Your task to perform on an android device: empty trash in the gmail app Image 0: 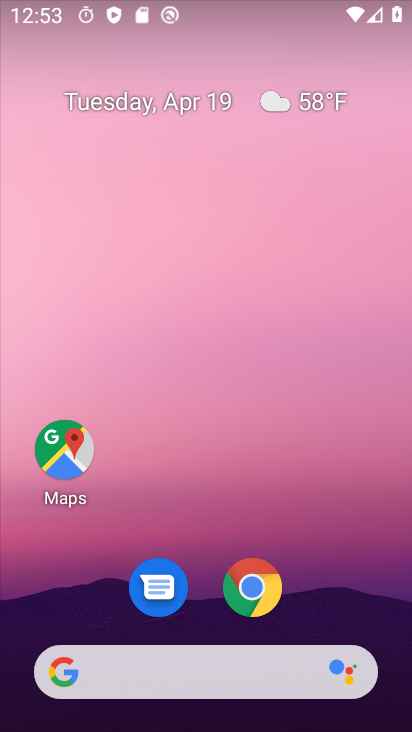
Step 0: drag from (376, 497) to (365, 114)
Your task to perform on an android device: empty trash in the gmail app Image 1: 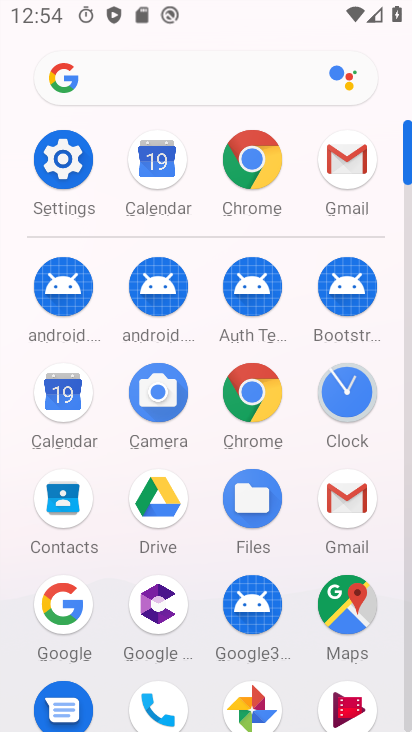
Step 1: click (338, 184)
Your task to perform on an android device: empty trash in the gmail app Image 2: 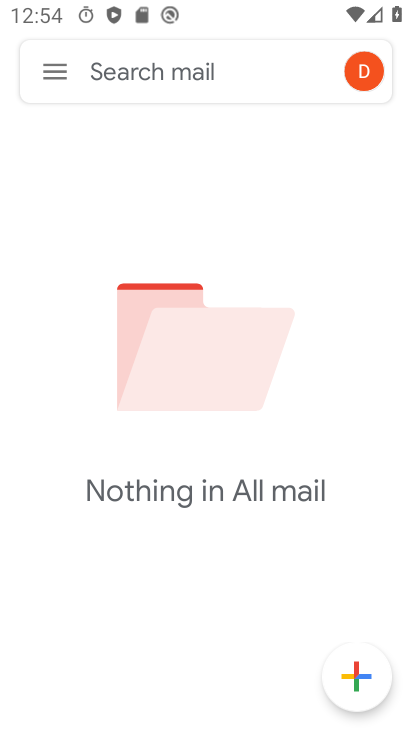
Step 2: click (53, 71)
Your task to perform on an android device: empty trash in the gmail app Image 3: 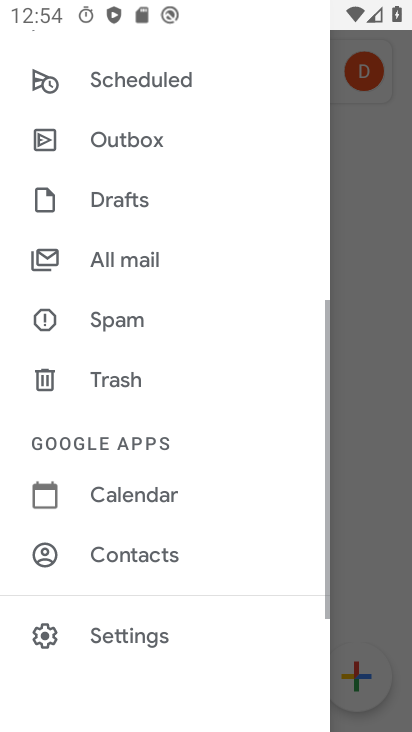
Step 3: click (125, 375)
Your task to perform on an android device: empty trash in the gmail app Image 4: 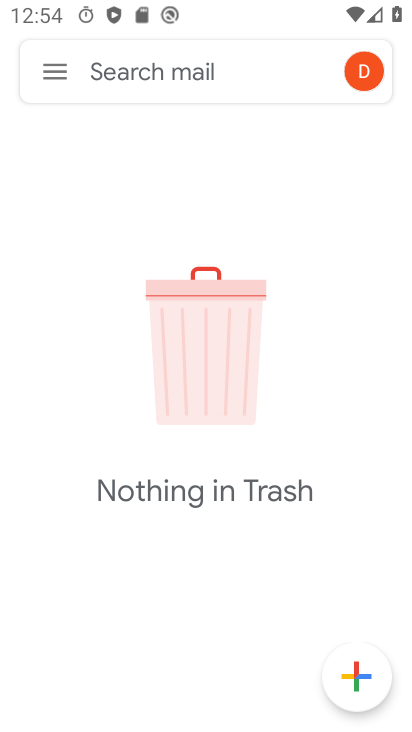
Step 4: task complete